Your task to perform on an android device: Open Google Chrome and click the shortcut for Amazon.com Image 0: 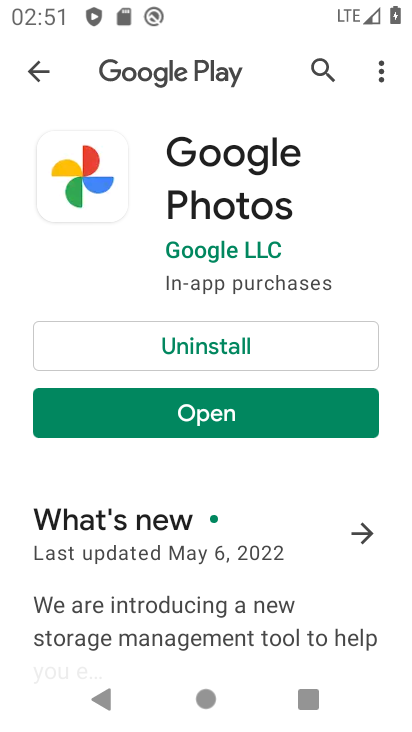
Step 0: press home button
Your task to perform on an android device: Open Google Chrome and click the shortcut for Amazon.com Image 1: 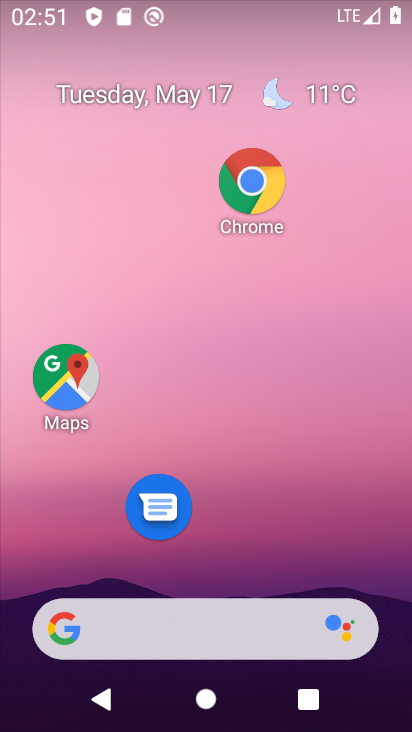
Step 1: click (256, 198)
Your task to perform on an android device: Open Google Chrome and click the shortcut for Amazon.com Image 2: 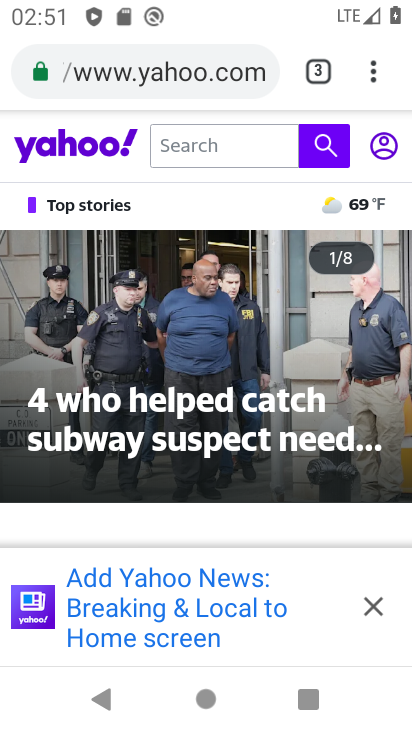
Step 2: click (323, 72)
Your task to perform on an android device: Open Google Chrome and click the shortcut for Amazon.com Image 3: 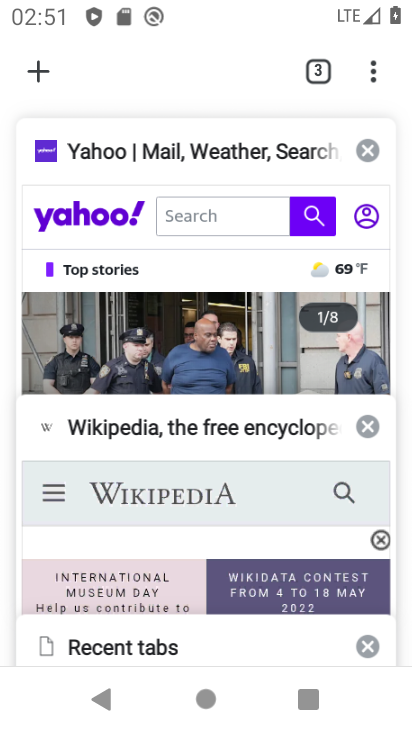
Step 3: click (44, 76)
Your task to perform on an android device: Open Google Chrome and click the shortcut for Amazon.com Image 4: 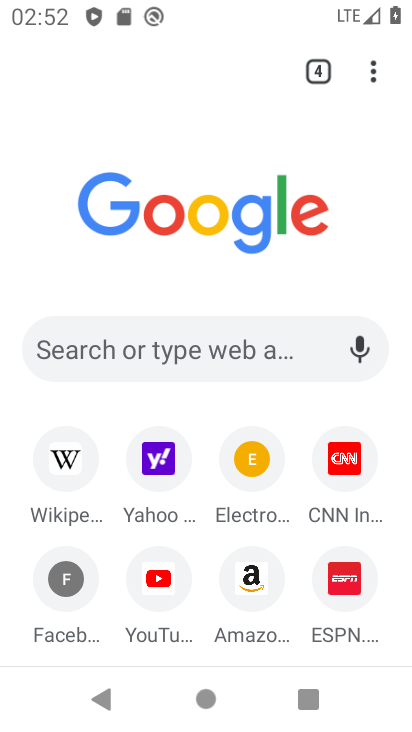
Step 4: click (239, 569)
Your task to perform on an android device: Open Google Chrome and click the shortcut for Amazon.com Image 5: 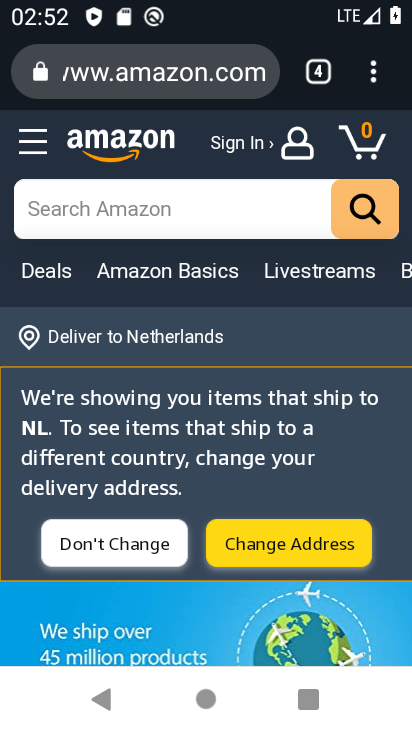
Step 5: task complete